Your task to perform on an android device: Go to Android settings Image 0: 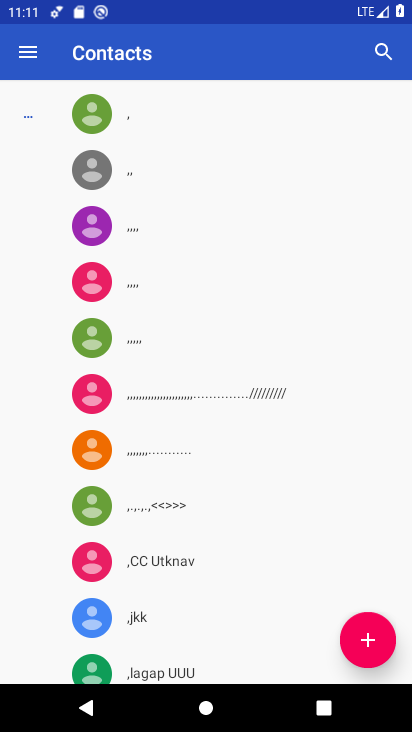
Step 0: press home button
Your task to perform on an android device: Go to Android settings Image 1: 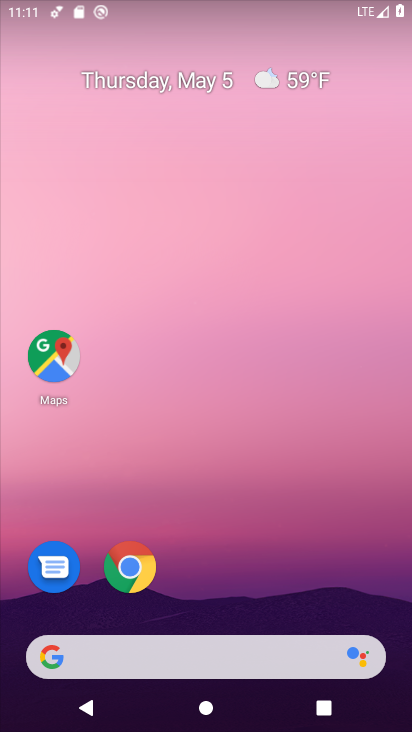
Step 1: drag from (337, 601) to (292, 12)
Your task to perform on an android device: Go to Android settings Image 2: 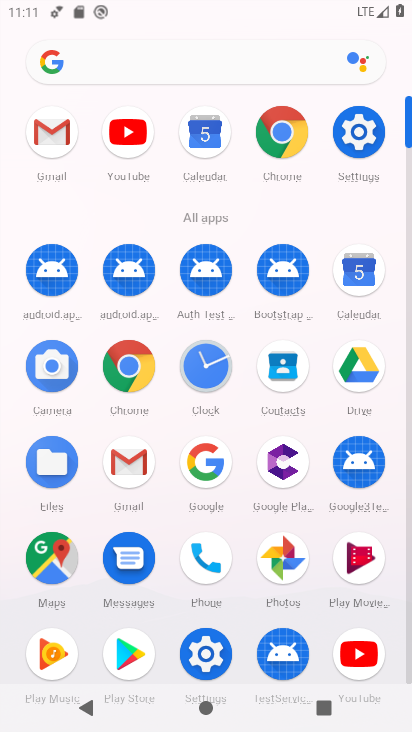
Step 2: click (351, 139)
Your task to perform on an android device: Go to Android settings Image 3: 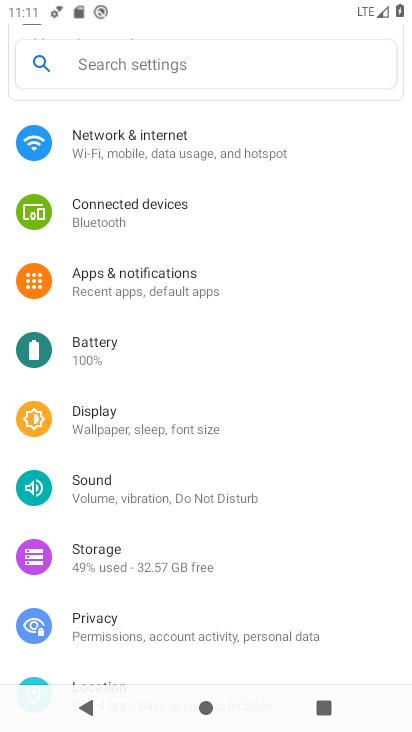
Step 3: task complete